Your task to perform on an android device: toggle data saver in the chrome app Image 0: 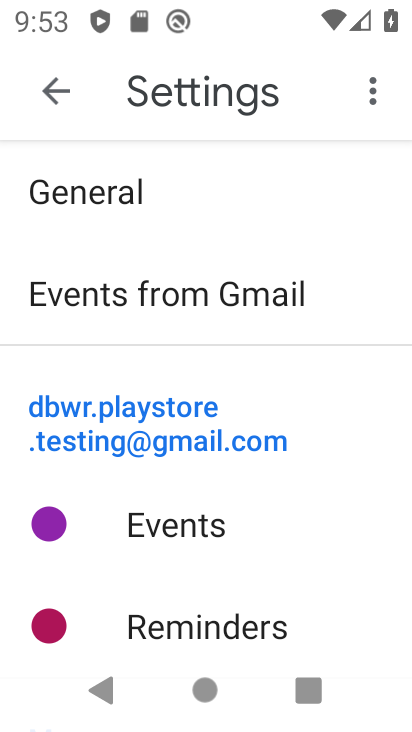
Step 0: press home button
Your task to perform on an android device: toggle data saver in the chrome app Image 1: 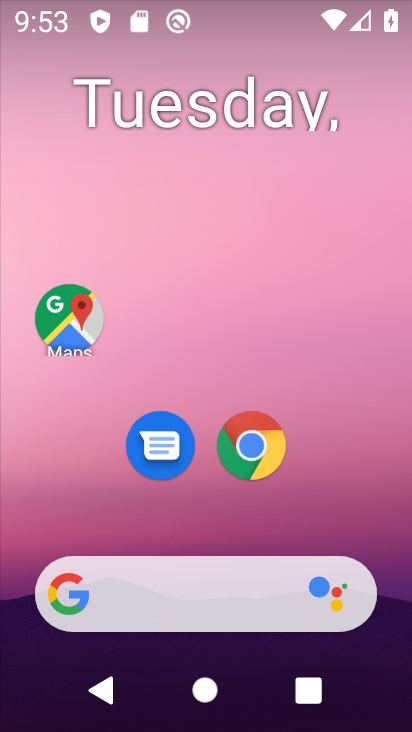
Step 1: click (261, 458)
Your task to perform on an android device: toggle data saver in the chrome app Image 2: 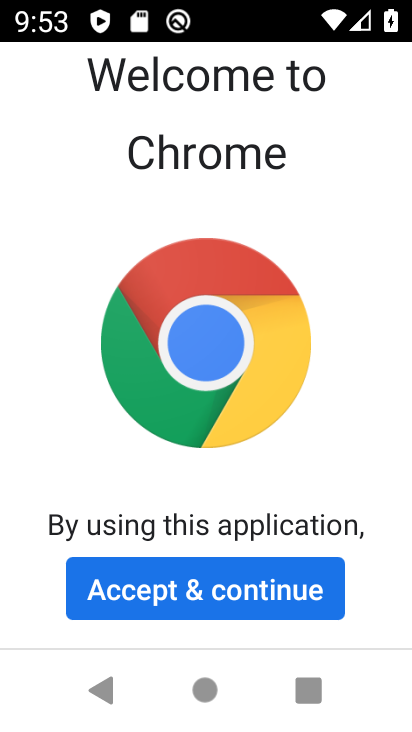
Step 2: click (287, 594)
Your task to perform on an android device: toggle data saver in the chrome app Image 3: 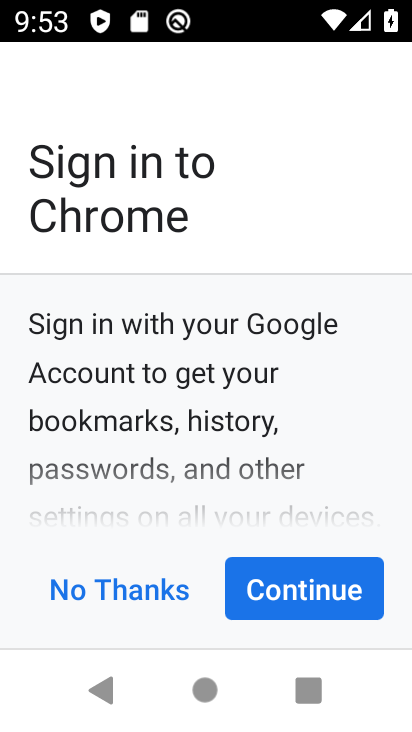
Step 3: click (313, 599)
Your task to perform on an android device: toggle data saver in the chrome app Image 4: 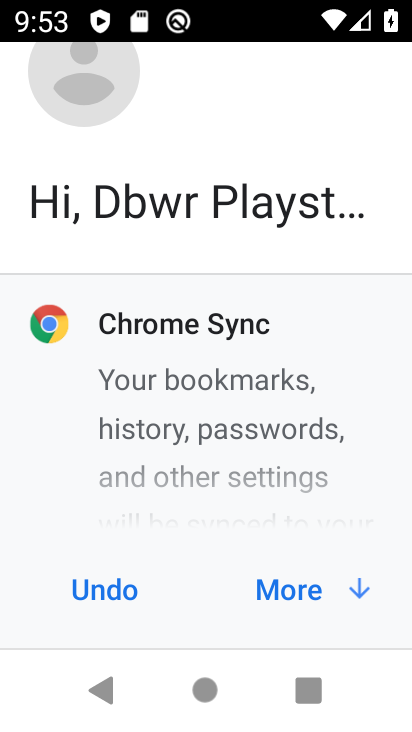
Step 4: click (313, 600)
Your task to perform on an android device: toggle data saver in the chrome app Image 5: 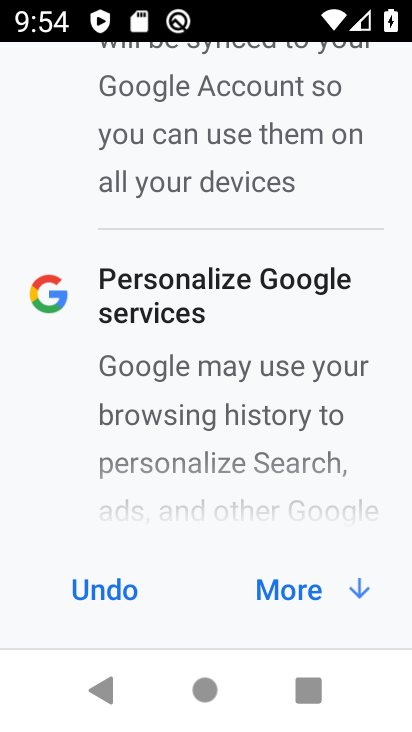
Step 5: click (294, 620)
Your task to perform on an android device: toggle data saver in the chrome app Image 6: 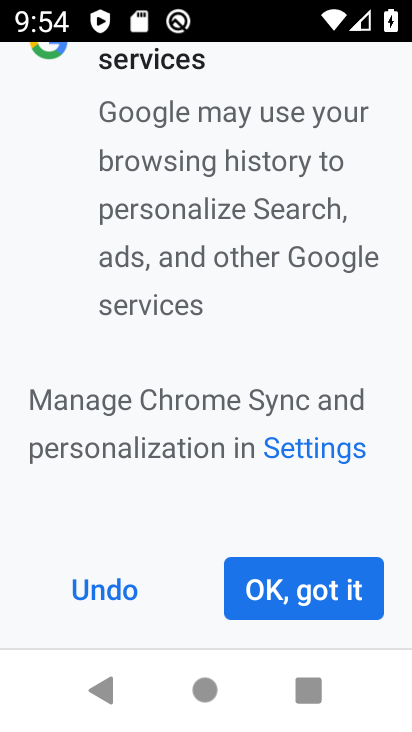
Step 6: click (294, 620)
Your task to perform on an android device: toggle data saver in the chrome app Image 7: 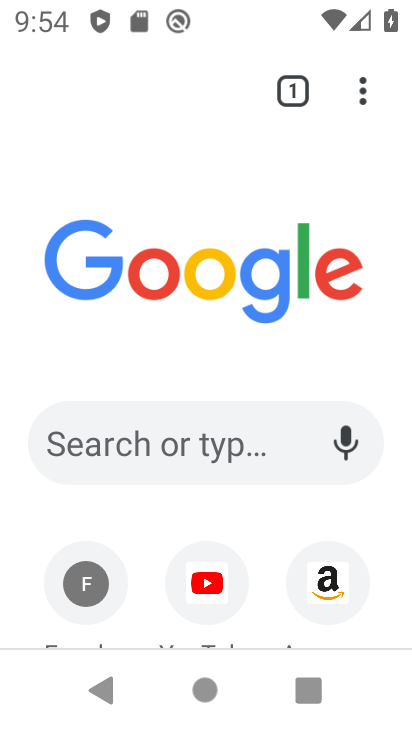
Step 7: drag from (375, 86) to (193, 473)
Your task to perform on an android device: toggle data saver in the chrome app Image 8: 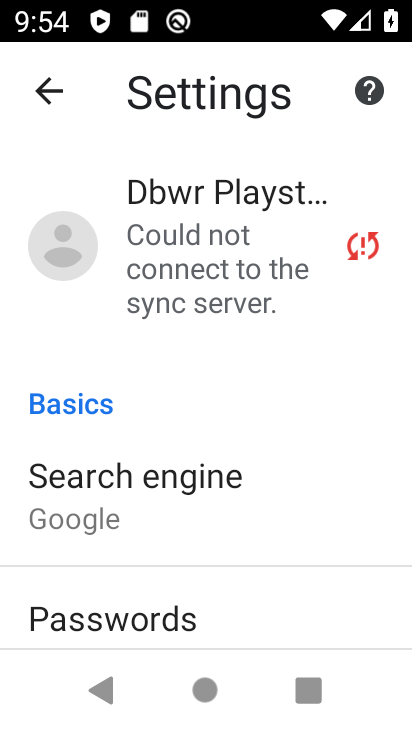
Step 8: drag from (138, 582) to (290, 188)
Your task to perform on an android device: toggle data saver in the chrome app Image 9: 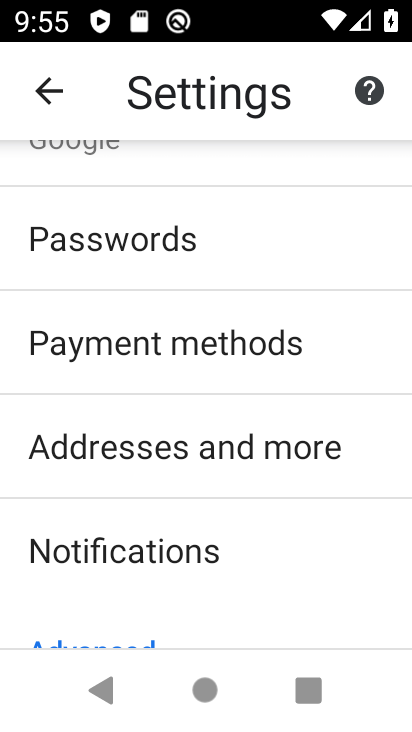
Step 9: drag from (183, 525) to (283, 230)
Your task to perform on an android device: toggle data saver in the chrome app Image 10: 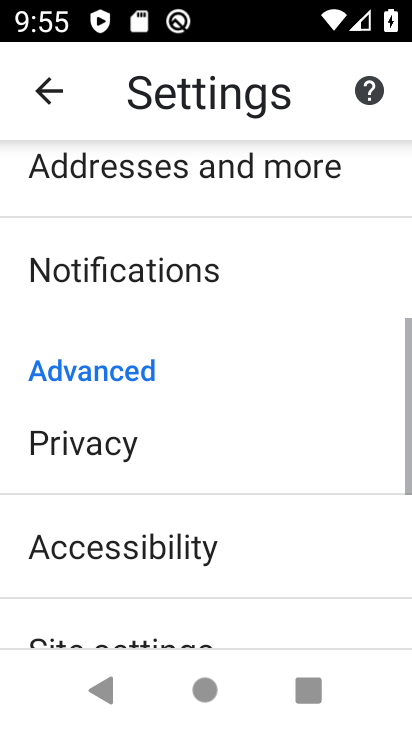
Step 10: drag from (239, 514) to (258, 394)
Your task to perform on an android device: toggle data saver in the chrome app Image 11: 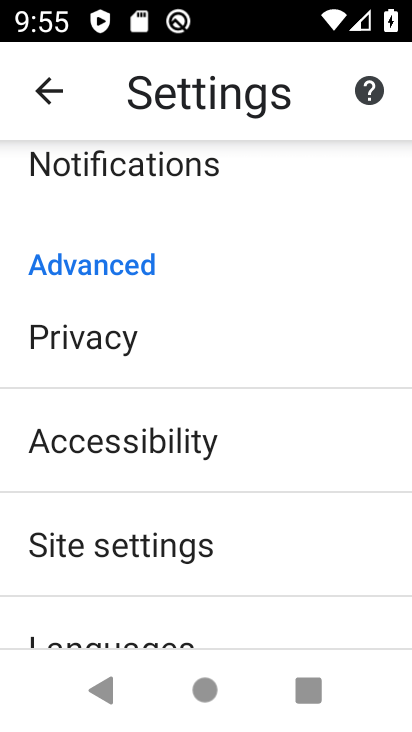
Step 11: drag from (145, 586) to (345, 336)
Your task to perform on an android device: toggle data saver in the chrome app Image 12: 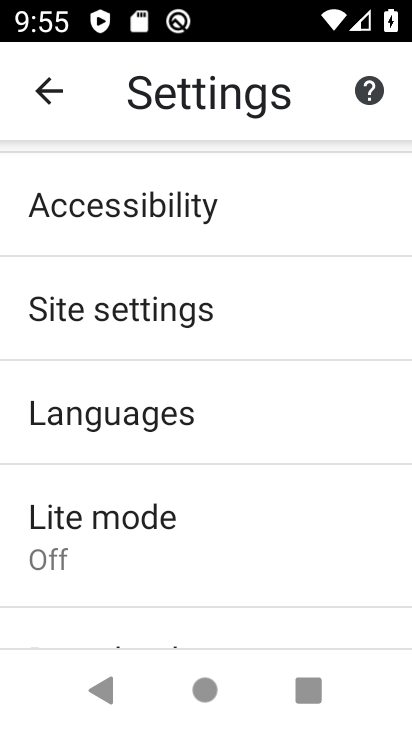
Step 12: click (182, 570)
Your task to perform on an android device: toggle data saver in the chrome app Image 13: 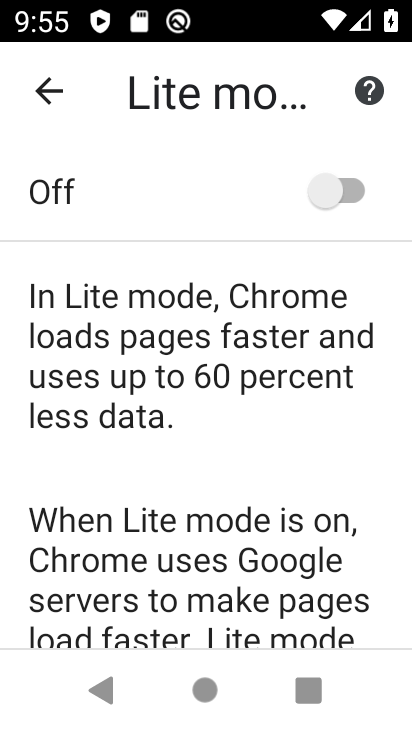
Step 13: click (386, 187)
Your task to perform on an android device: toggle data saver in the chrome app Image 14: 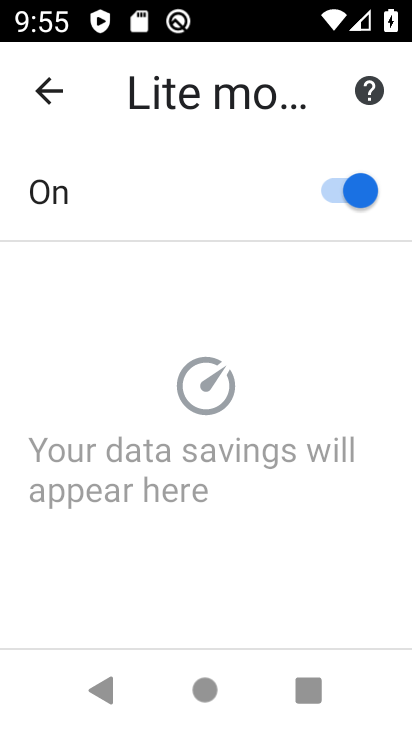
Step 14: task complete